Your task to perform on an android device: Search for vegetarian restaurants on Maps Image 0: 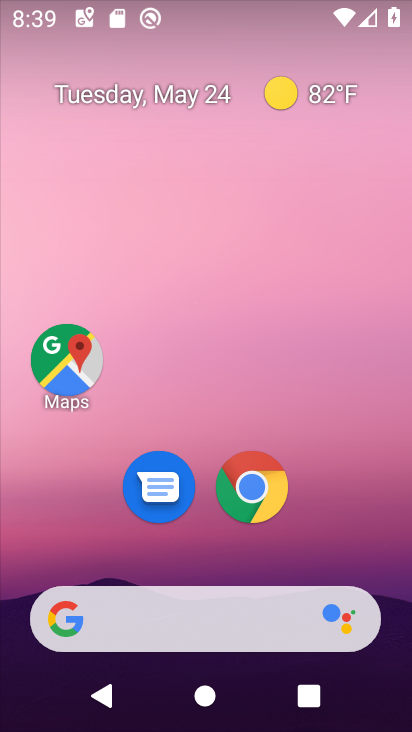
Step 0: drag from (370, 556) to (382, 139)
Your task to perform on an android device: Search for vegetarian restaurants on Maps Image 1: 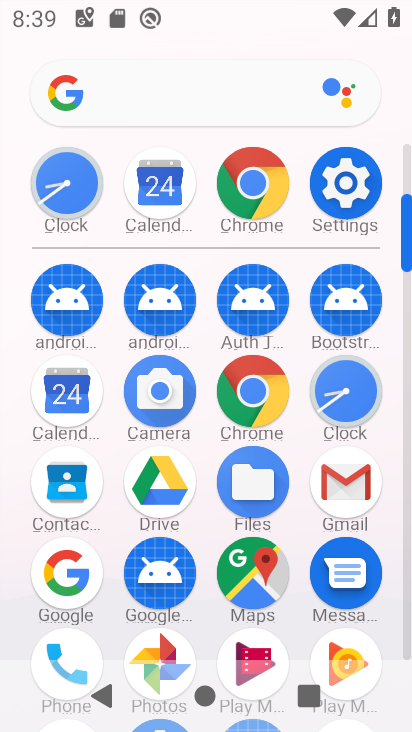
Step 1: click (237, 586)
Your task to perform on an android device: Search for vegetarian restaurants on Maps Image 2: 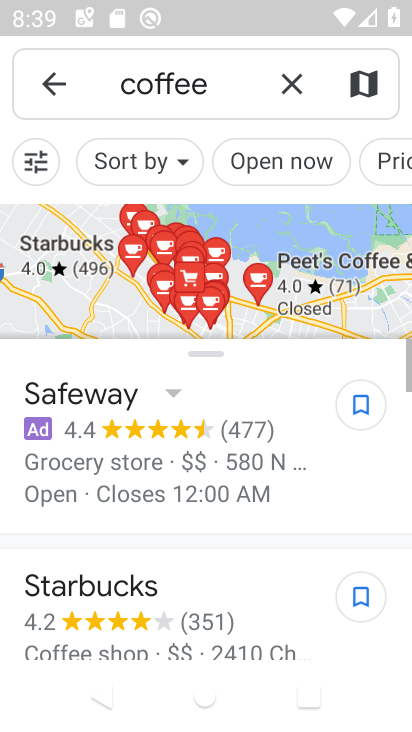
Step 2: click (286, 82)
Your task to perform on an android device: Search for vegetarian restaurants on Maps Image 3: 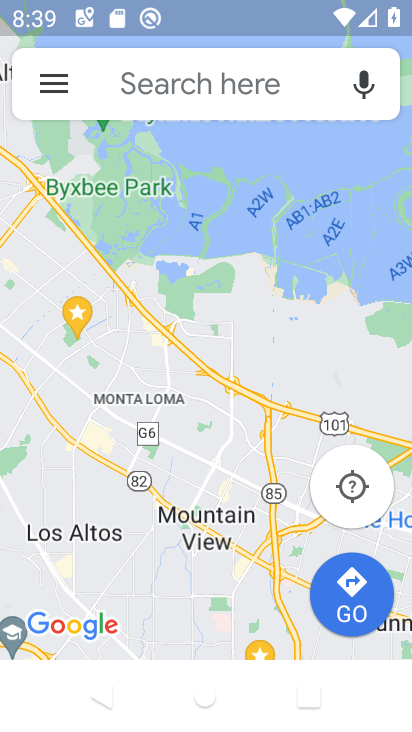
Step 3: click (171, 72)
Your task to perform on an android device: Search for vegetarian restaurants on Maps Image 4: 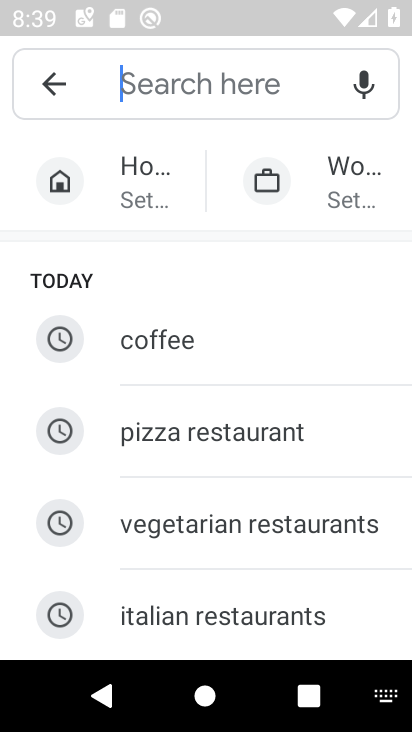
Step 4: click (317, 525)
Your task to perform on an android device: Search for vegetarian restaurants on Maps Image 5: 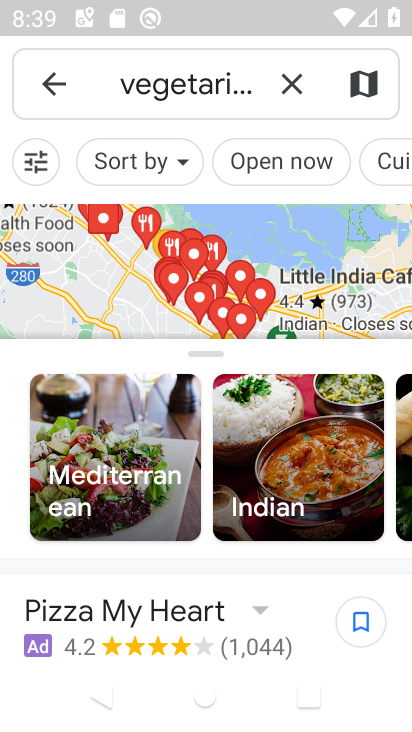
Step 5: task complete